Your task to perform on an android device: Set the phone to "Do not disturb". Image 0: 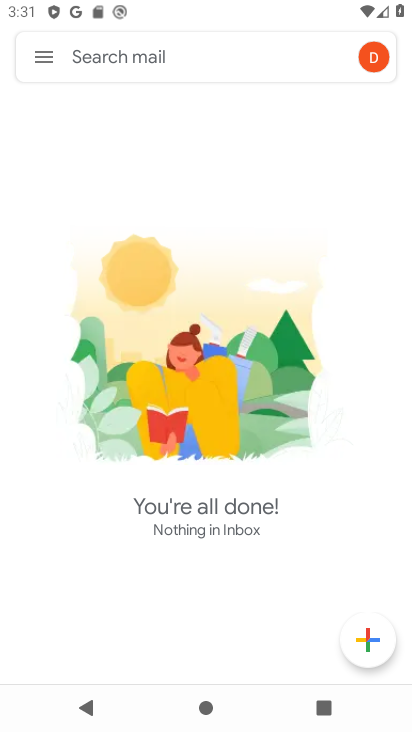
Step 0: press home button
Your task to perform on an android device: Set the phone to "Do not disturb". Image 1: 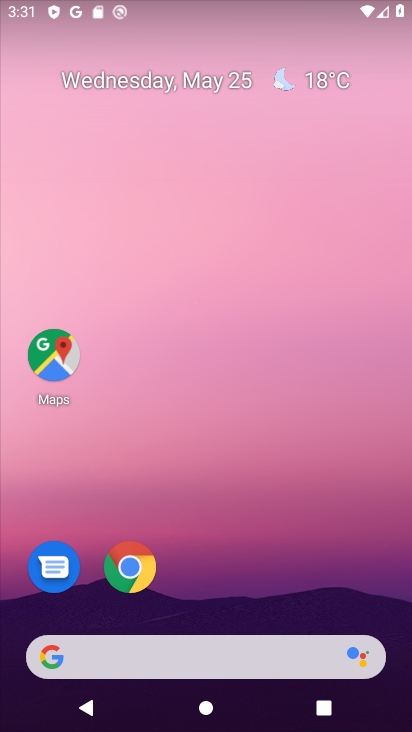
Step 1: drag from (368, 531) to (380, 124)
Your task to perform on an android device: Set the phone to "Do not disturb". Image 2: 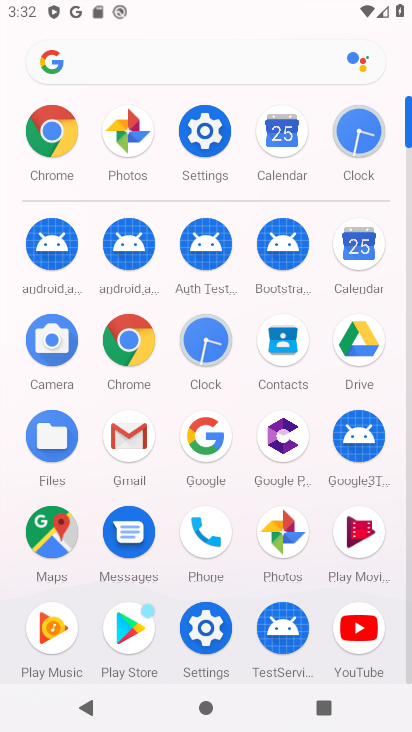
Step 2: click (208, 152)
Your task to perform on an android device: Set the phone to "Do not disturb". Image 3: 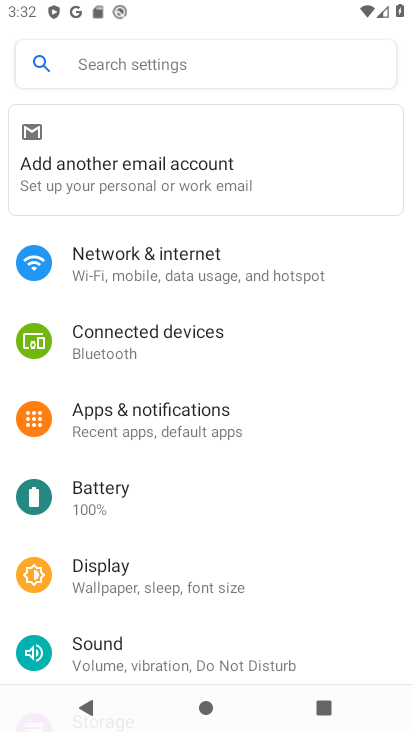
Step 3: drag from (333, 462) to (354, 337)
Your task to perform on an android device: Set the phone to "Do not disturb". Image 4: 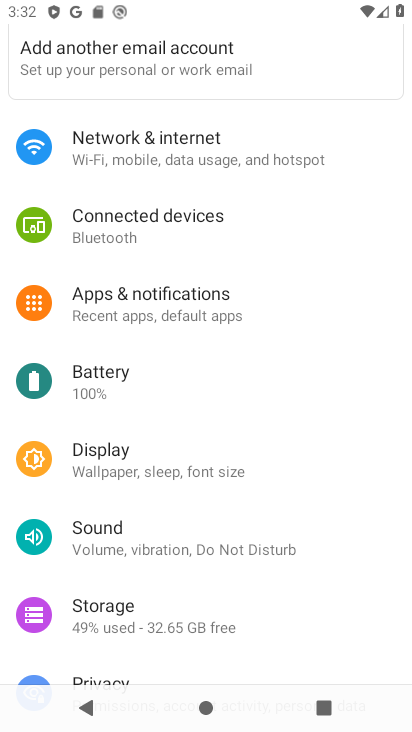
Step 4: drag from (352, 476) to (355, 380)
Your task to perform on an android device: Set the phone to "Do not disturb". Image 5: 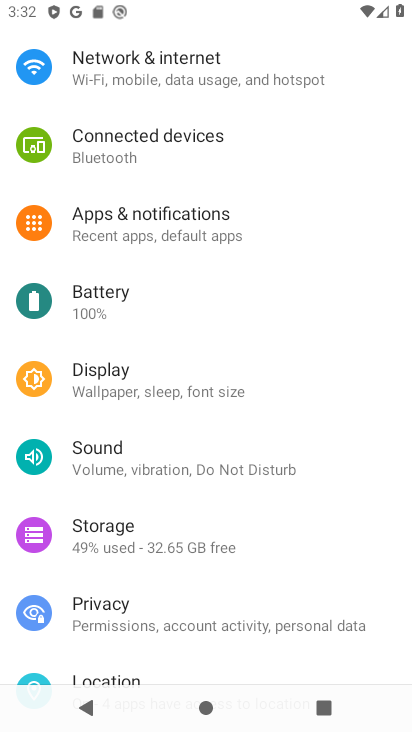
Step 5: drag from (369, 499) to (361, 350)
Your task to perform on an android device: Set the phone to "Do not disturb". Image 6: 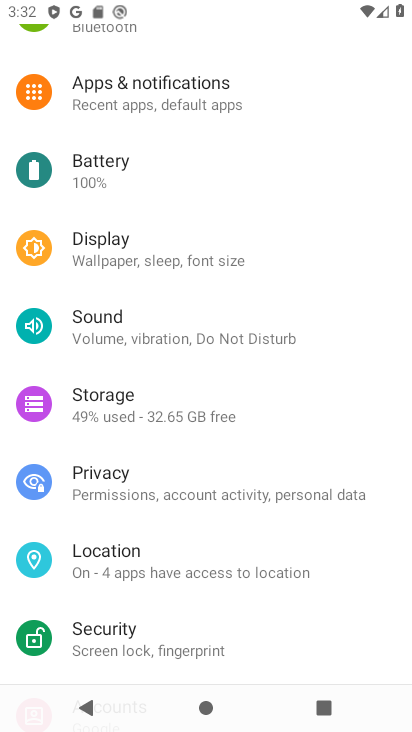
Step 6: drag from (366, 529) to (356, 394)
Your task to perform on an android device: Set the phone to "Do not disturb". Image 7: 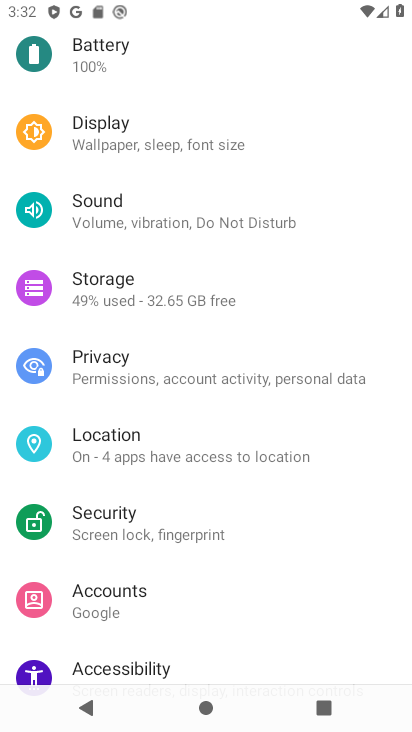
Step 7: drag from (364, 547) to (359, 402)
Your task to perform on an android device: Set the phone to "Do not disturb". Image 8: 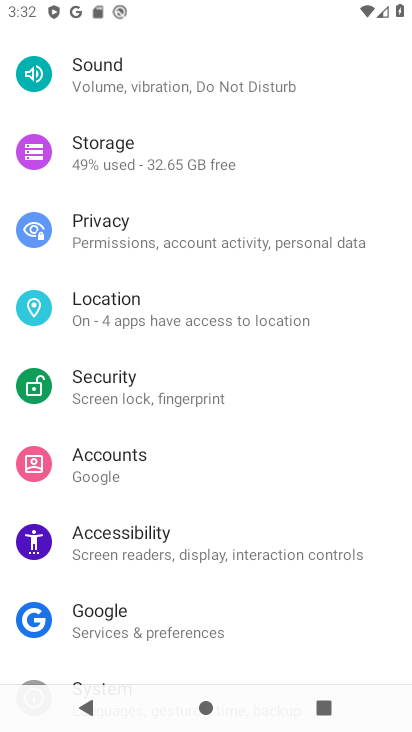
Step 8: drag from (354, 562) to (368, 357)
Your task to perform on an android device: Set the phone to "Do not disturb". Image 9: 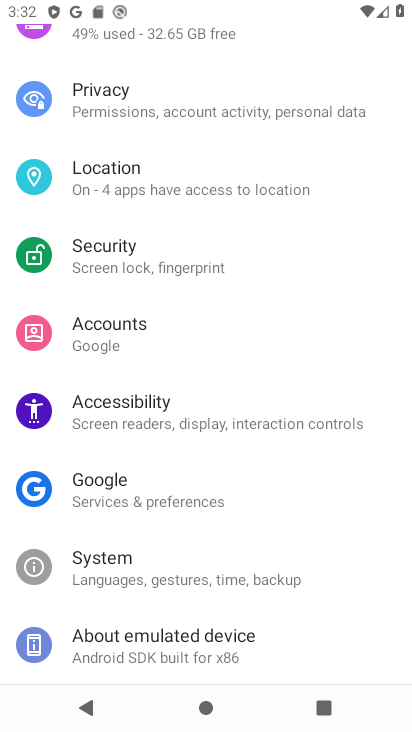
Step 9: drag from (367, 521) to (363, 356)
Your task to perform on an android device: Set the phone to "Do not disturb". Image 10: 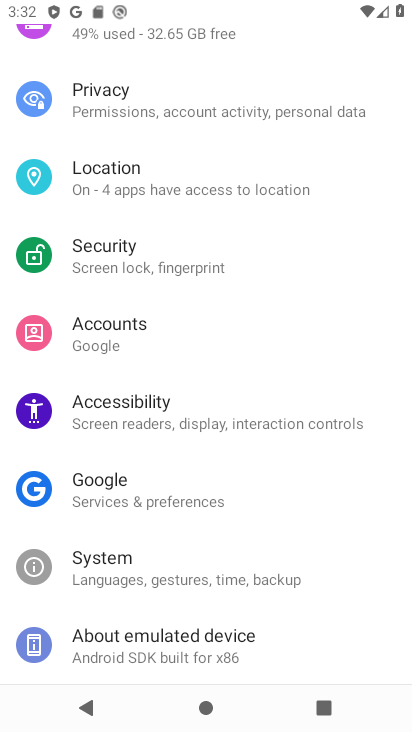
Step 10: drag from (342, 293) to (349, 402)
Your task to perform on an android device: Set the phone to "Do not disturb". Image 11: 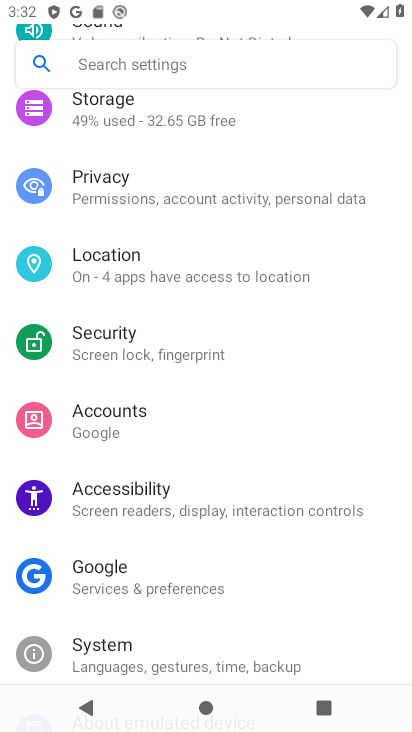
Step 11: drag from (337, 261) to (331, 408)
Your task to perform on an android device: Set the phone to "Do not disturb". Image 12: 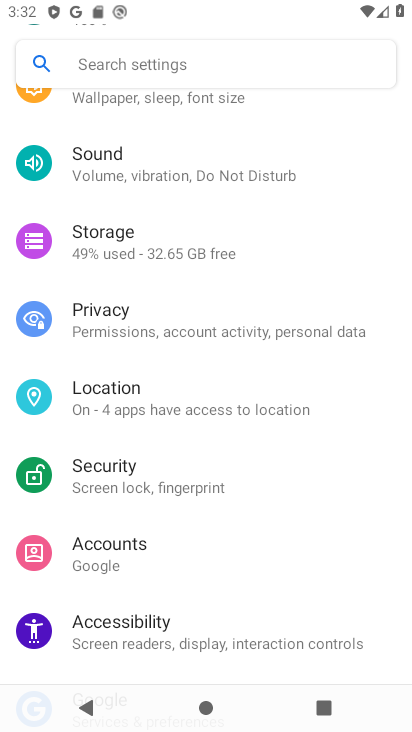
Step 12: drag from (330, 272) to (315, 398)
Your task to perform on an android device: Set the phone to "Do not disturb". Image 13: 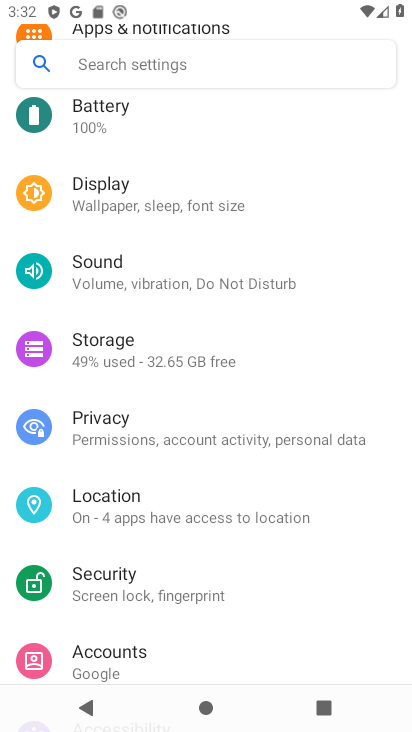
Step 13: drag from (318, 247) to (313, 377)
Your task to perform on an android device: Set the phone to "Do not disturb". Image 14: 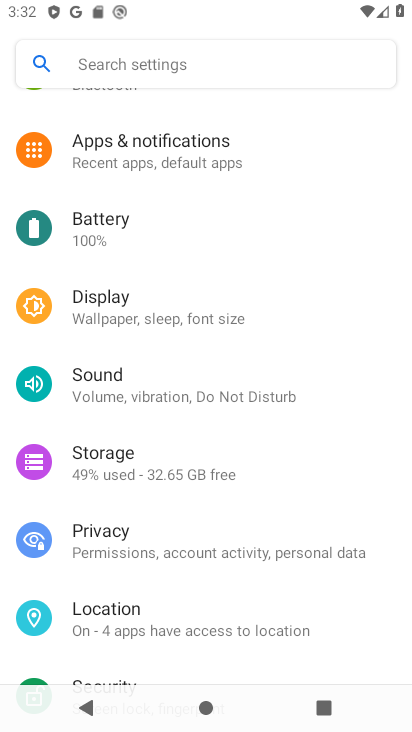
Step 14: click (267, 393)
Your task to perform on an android device: Set the phone to "Do not disturb". Image 15: 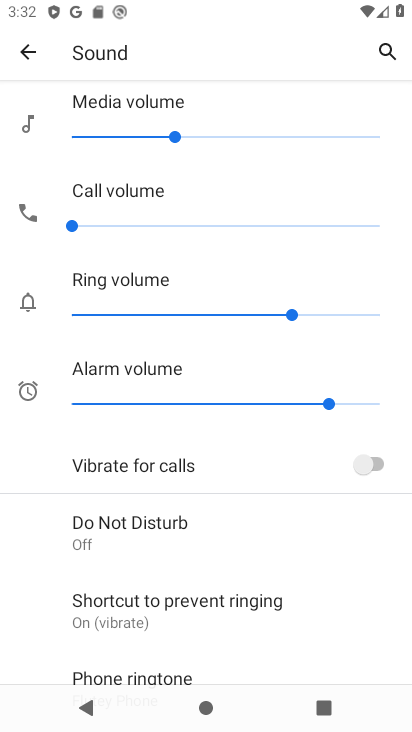
Step 15: click (184, 540)
Your task to perform on an android device: Set the phone to "Do not disturb". Image 16: 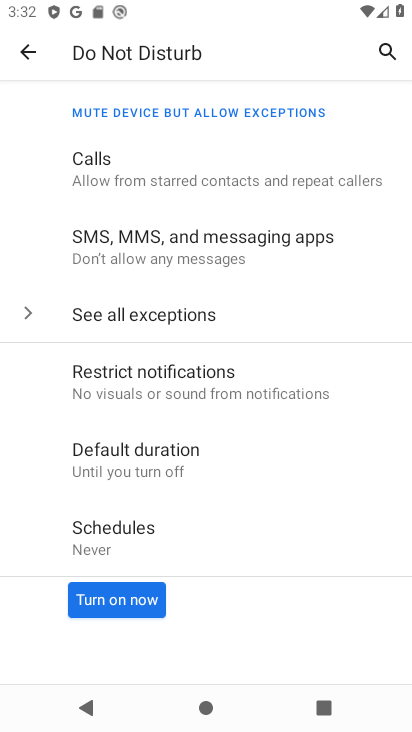
Step 16: click (147, 582)
Your task to perform on an android device: Set the phone to "Do not disturb". Image 17: 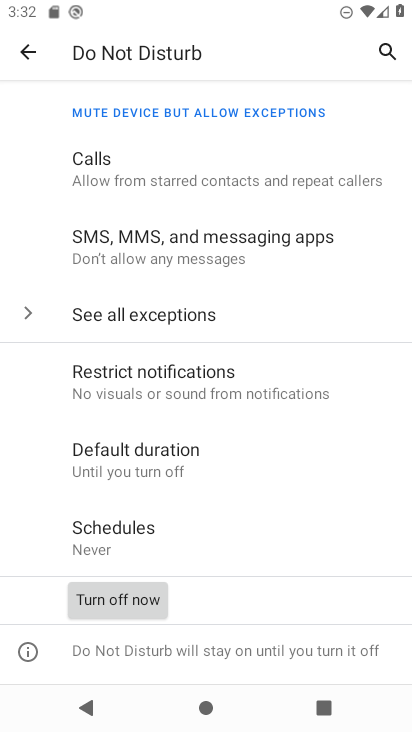
Step 17: task complete